Your task to perform on an android device: What's on my calendar today? Image 0: 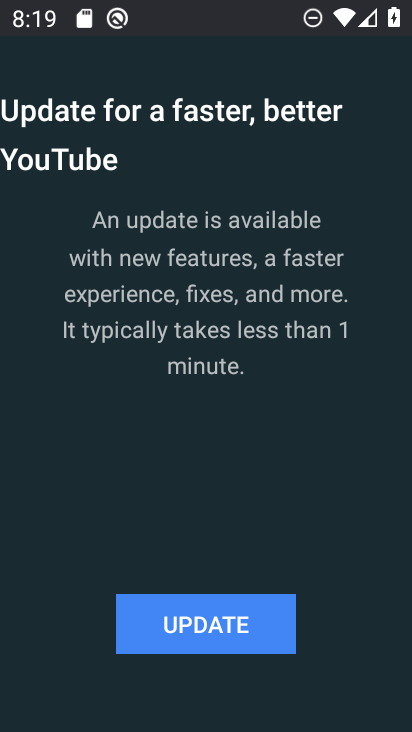
Step 0: press back button
Your task to perform on an android device: What's on my calendar today? Image 1: 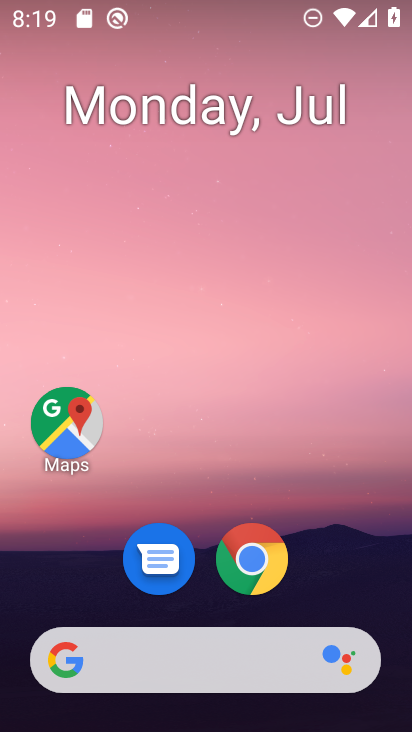
Step 1: drag from (92, 555) to (188, 46)
Your task to perform on an android device: What's on my calendar today? Image 2: 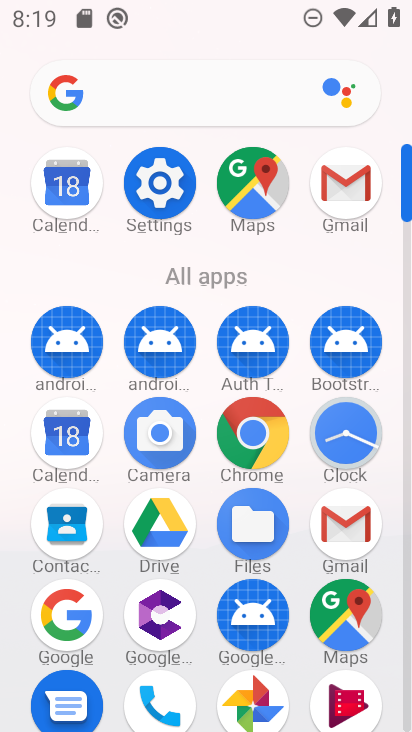
Step 2: click (69, 441)
Your task to perform on an android device: What's on my calendar today? Image 3: 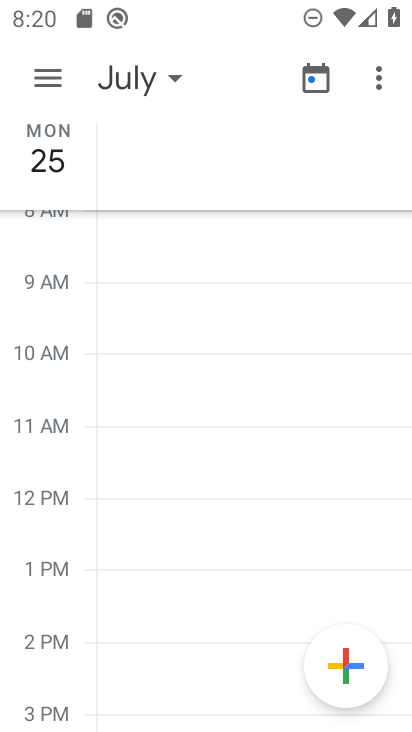
Step 3: click (54, 72)
Your task to perform on an android device: What's on my calendar today? Image 4: 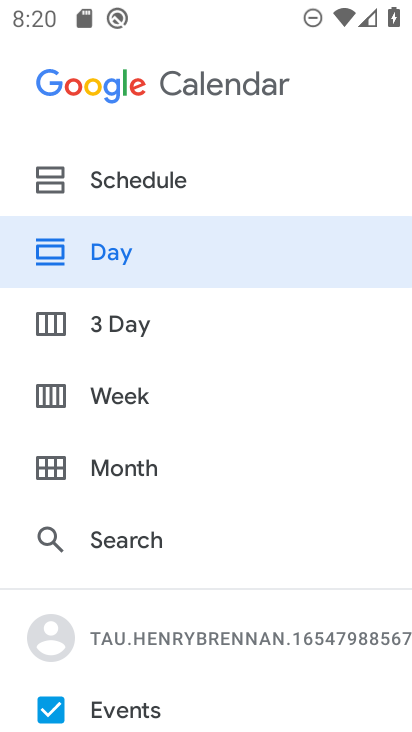
Step 4: click (98, 161)
Your task to perform on an android device: What's on my calendar today? Image 5: 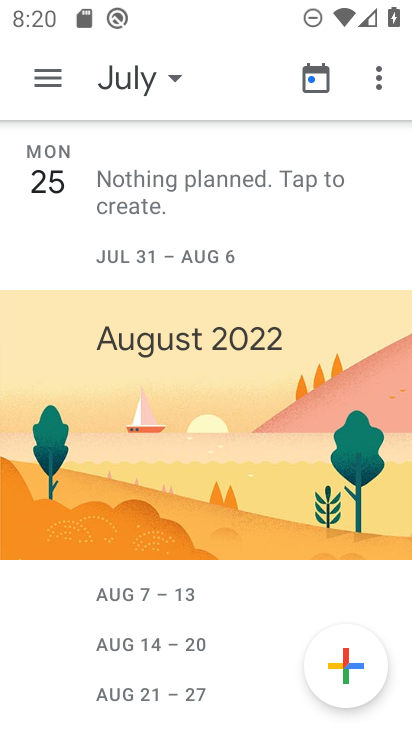
Step 5: click (152, 73)
Your task to perform on an android device: What's on my calendar today? Image 6: 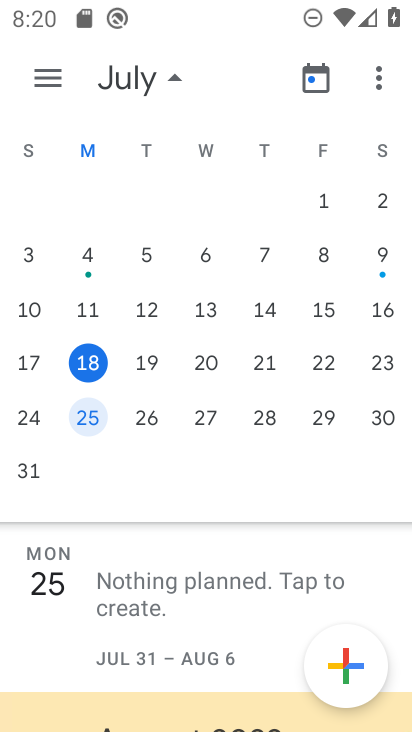
Step 6: click (93, 347)
Your task to perform on an android device: What's on my calendar today? Image 7: 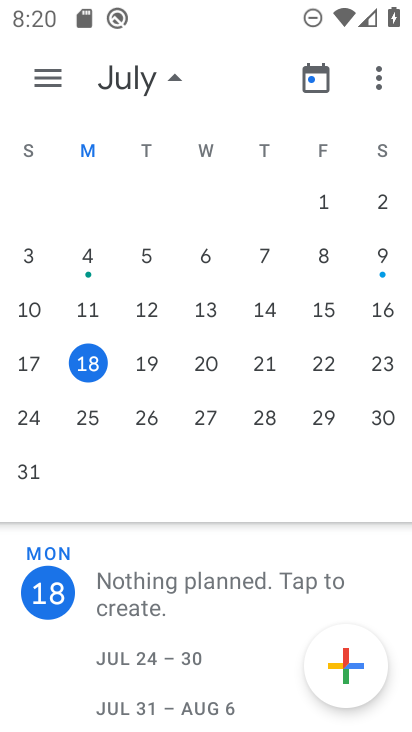
Step 7: task complete